Your task to perform on an android device: Open calendar and show me the third week of next month Image 0: 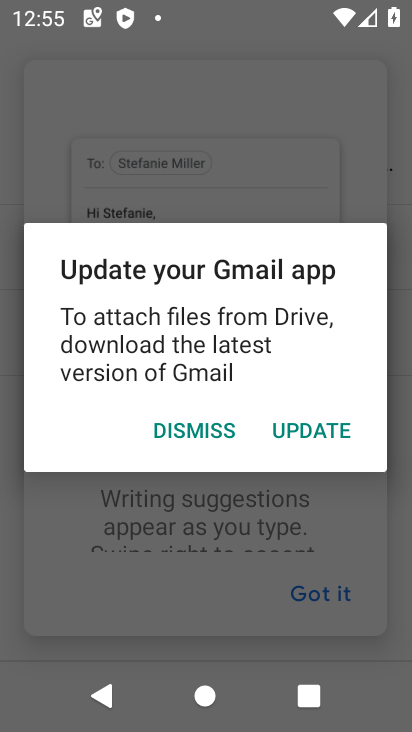
Step 0: press back button
Your task to perform on an android device: Open calendar and show me the third week of next month Image 1: 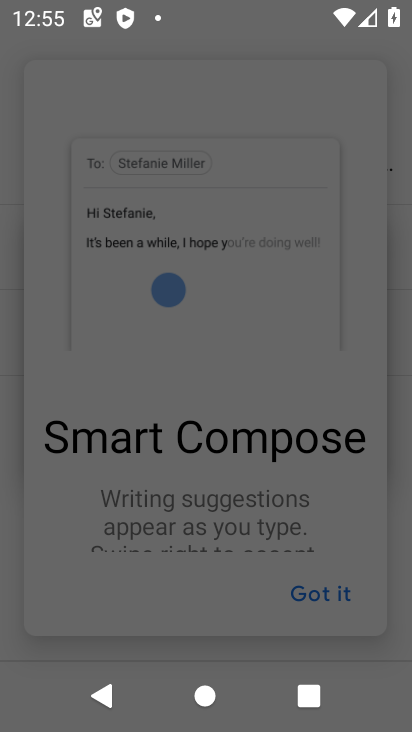
Step 1: press back button
Your task to perform on an android device: Open calendar and show me the third week of next month Image 2: 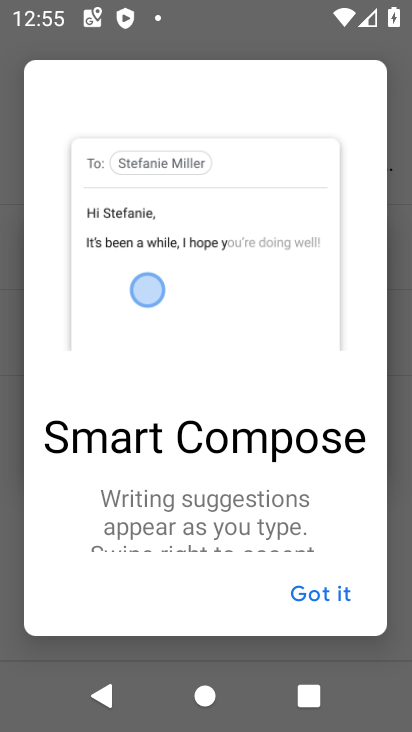
Step 2: press back button
Your task to perform on an android device: Open calendar and show me the third week of next month Image 3: 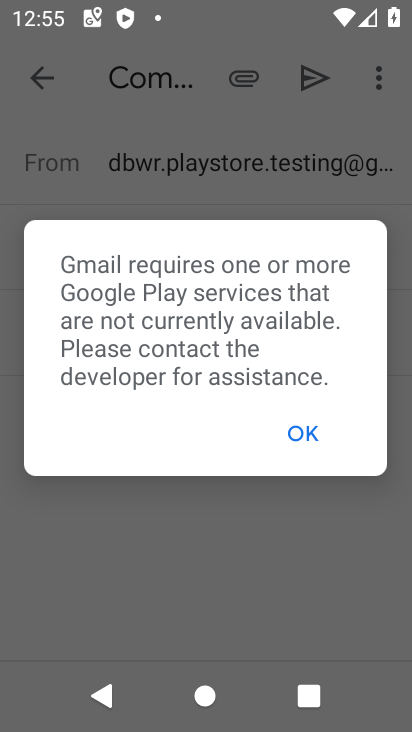
Step 3: press home button
Your task to perform on an android device: Open calendar and show me the third week of next month Image 4: 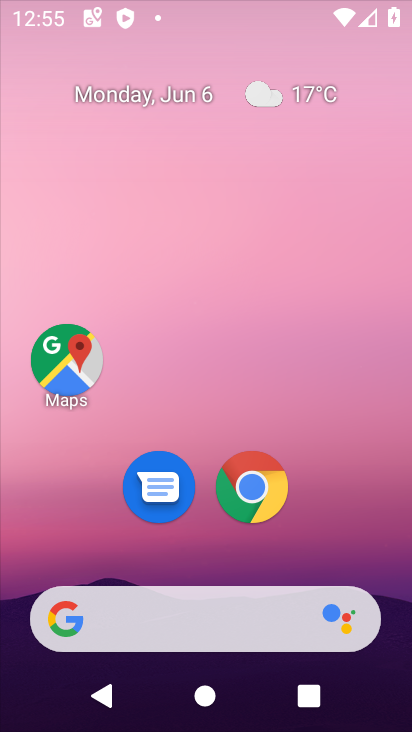
Step 4: drag from (255, 531) to (286, 79)
Your task to perform on an android device: Open calendar and show me the third week of next month Image 5: 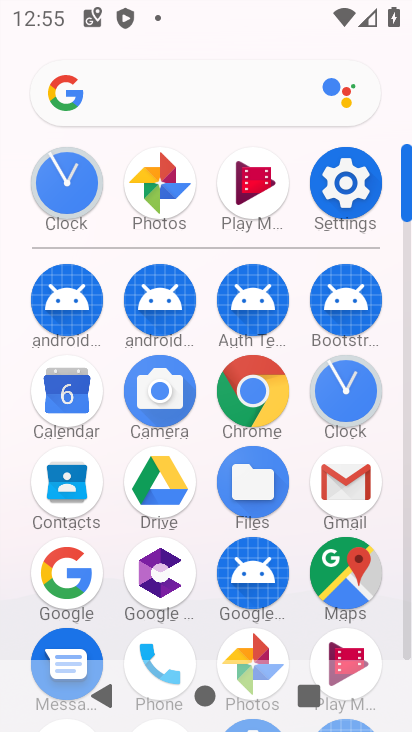
Step 5: click (65, 407)
Your task to perform on an android device: Open calendar and show me the third week of next month Image 6: 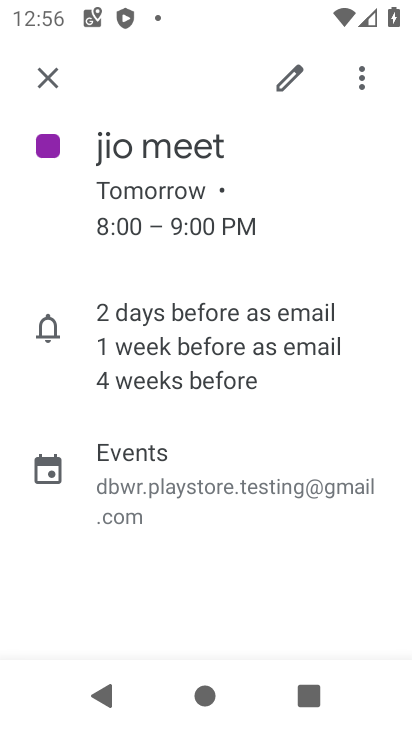
Step 6: click (61, 89)
Your task to perform on an android device: Open calendar and show me the third week of next month Image 7: 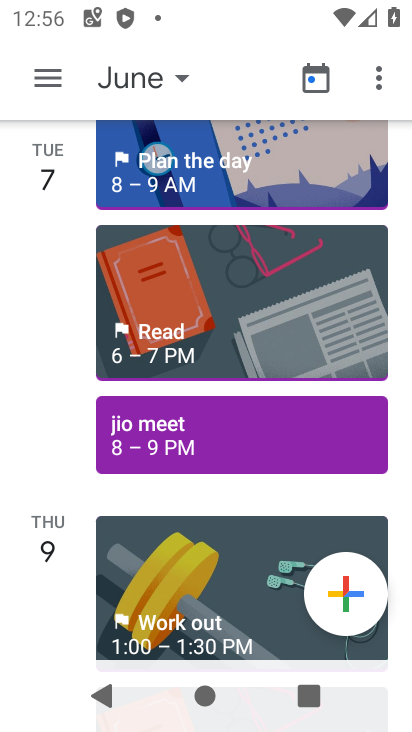
Step 7: click (161, 73)
Your task to perform on an android device: Open calendar and show me the third week of next month Image 8: 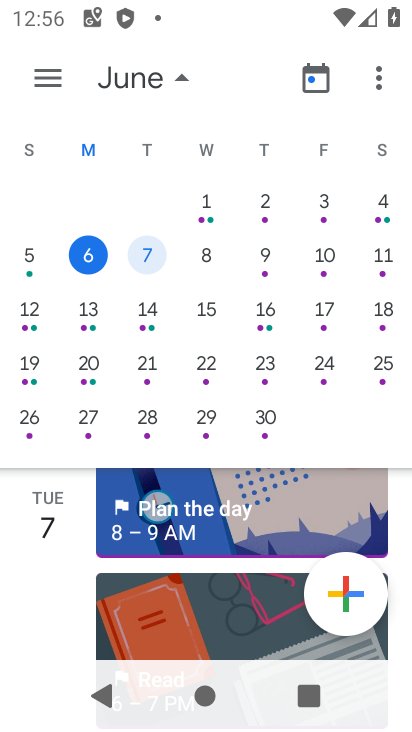
Step 8: drag from (362, 296) to (0, 290)
Your task to perform on an android device: Open calendar and show me the third week of next month Image 9: 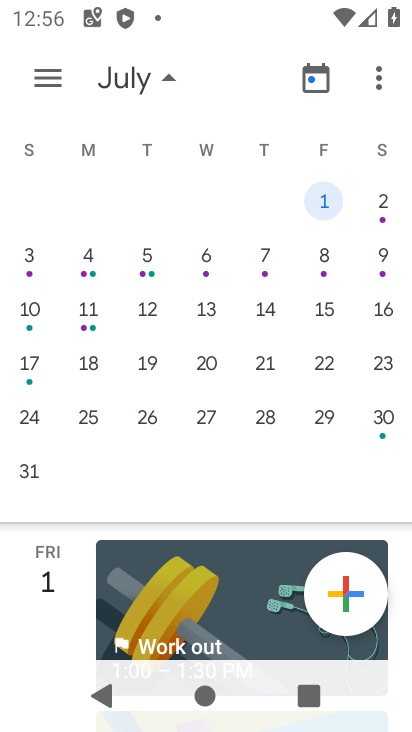
Step 9: click (78, 352)
Your task to perform on an android device: Open calendar and show me the third week of next month Image 10: 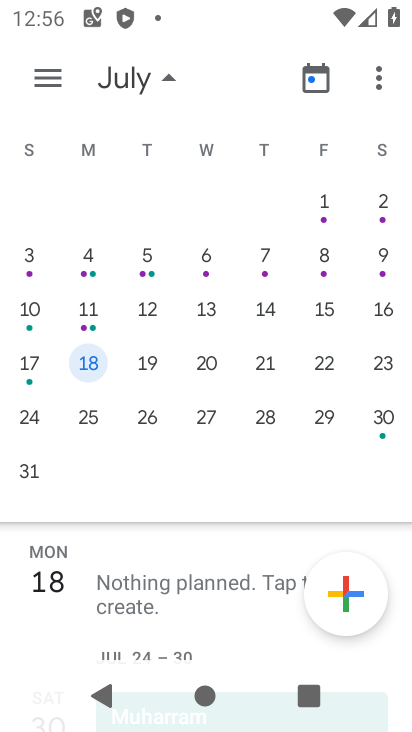
Step 10: task complete